Your task to perform on an android device: turn on notifications settings in the gmail app Image 0: 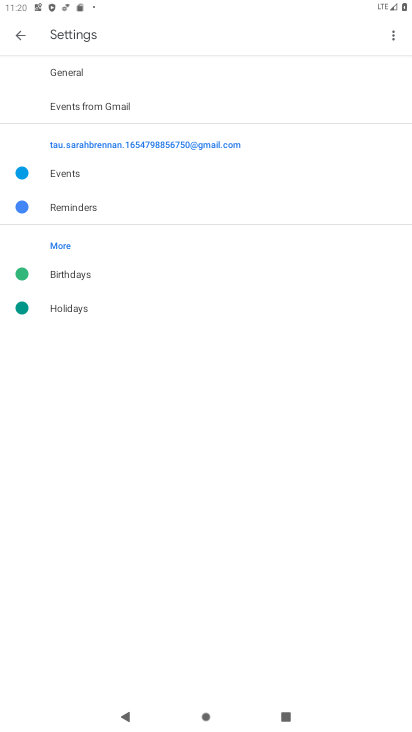
Step 0: press home button
Your task to perform on an android device: turn on notifications settings in the gmail app Image 1: 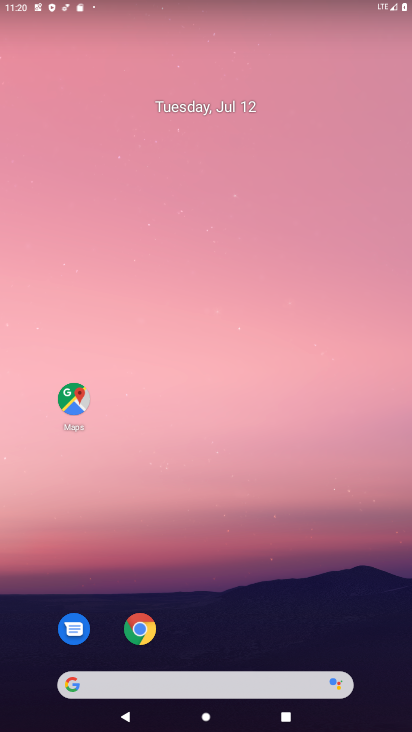
Step 1: drag from (212, 651) to (237, 95)
Your task to perform on an android device: turn on notifications settings in the gmail app Image 2: 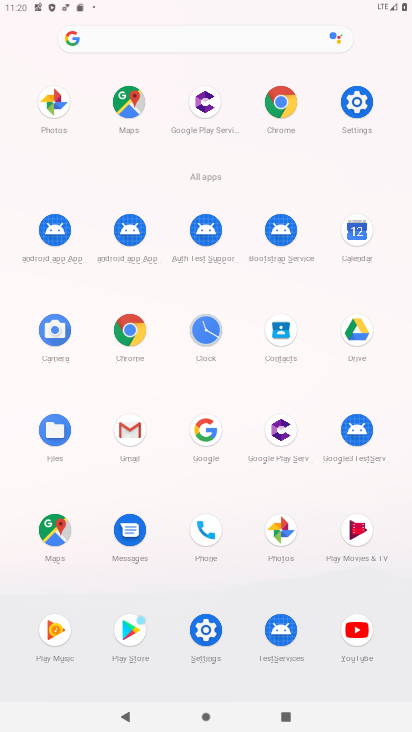
Step 2: click (126, 422)
Your task to perform on an android device: turn on notifications settings in the gmail app Image 3: 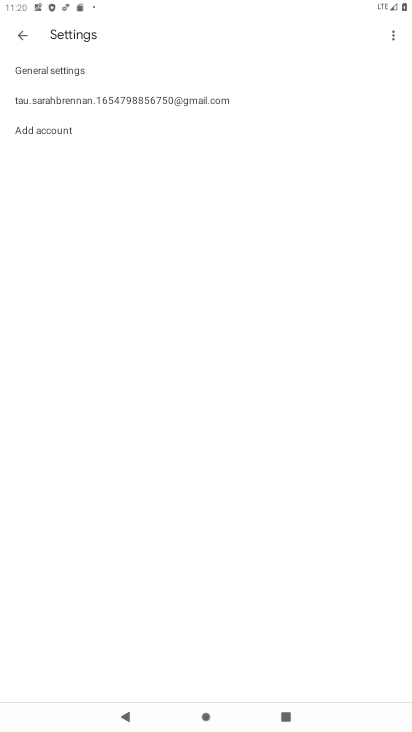
Step 3: click (96, 66)
Your task to perform on an android device: turn on notifications settings in the gmail app Image 4: 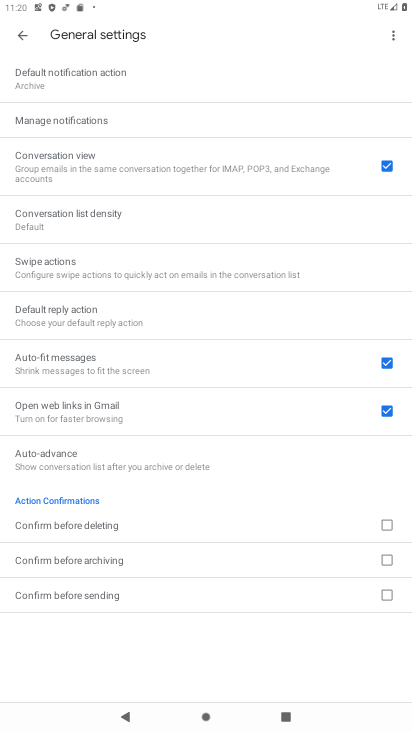
Step 4: click (119, 118)
Your task to perform on an android device: turn on notifications settings in the gmail app Image 5: 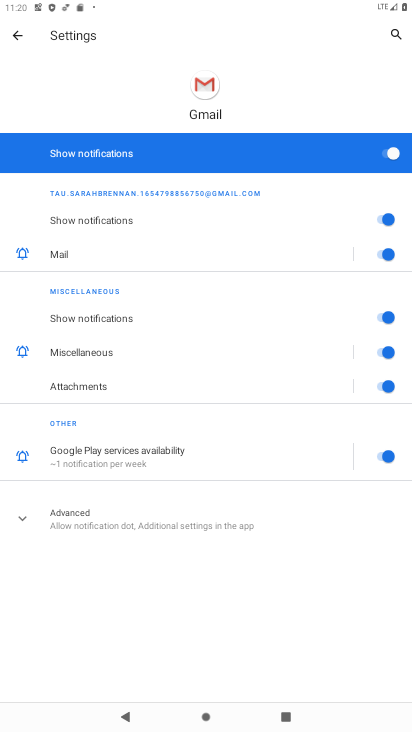
Step 5: task complete